Your task to perform on an android device: Open Amazon Image 0: 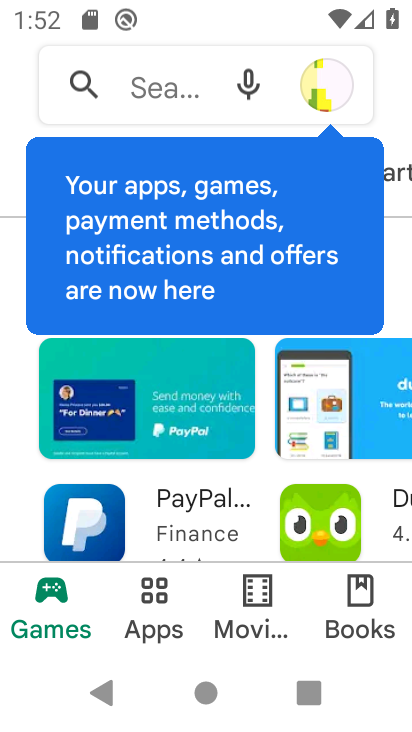
Step 0: press back button
Your task to perform on an android device: Open Amazon Image 1: 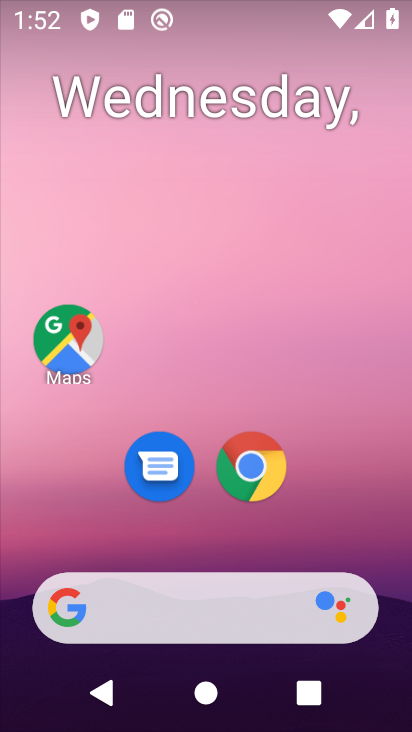
Step 1: drag from (373, 513) to (203, 56)
Your task to perform on an android device: Open Amazon Image 2: 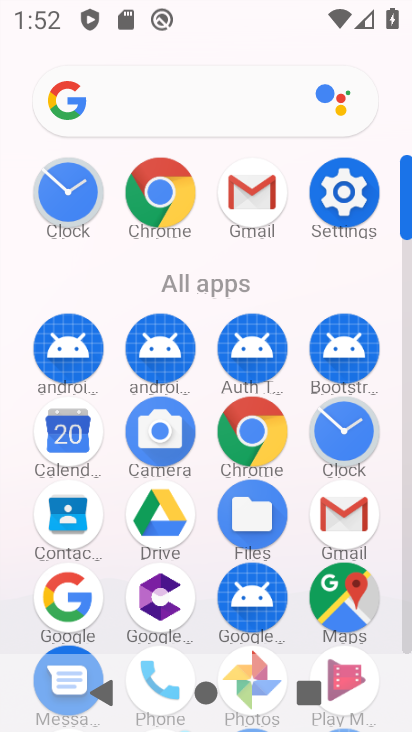
Step 2: click (159, 191)
Your task to perform on an android device: Open Amazon Image 3: 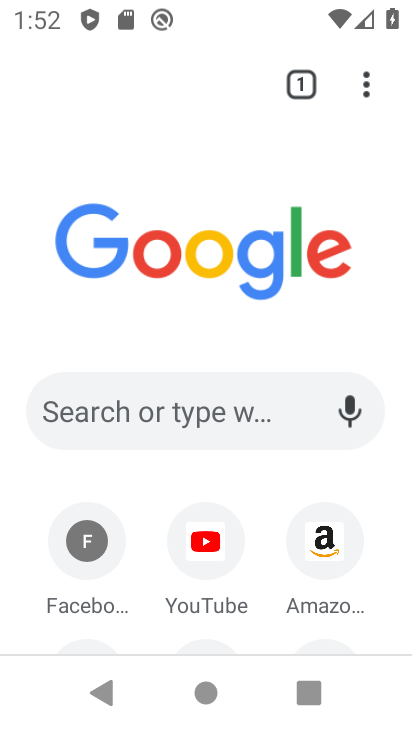
Step 3: click (325, 532)
Your task to perform on an android device: Open Amazon Image 4: 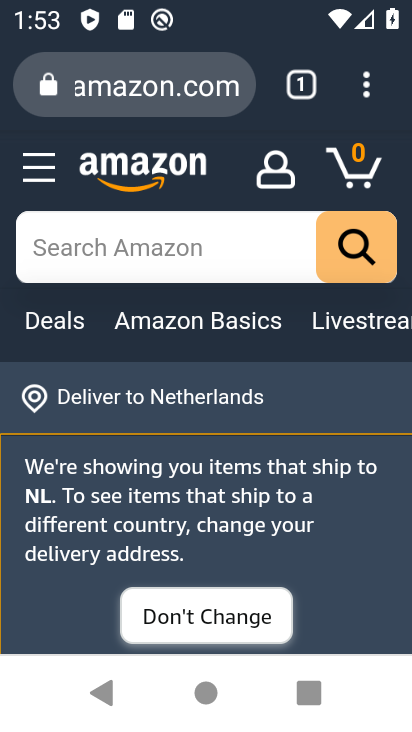
Step 4: task complete